Your task to perform on an android device: Go to Yahoo.com Image 0: 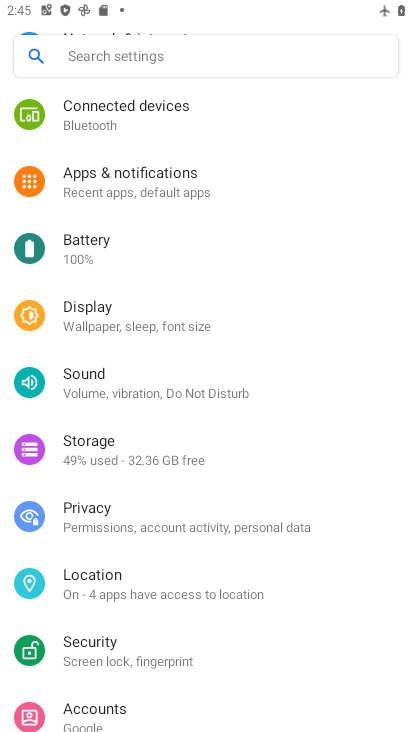
Step 0: press home button
Your task to perform on an android device: Go to Yahoo.com Image 1: 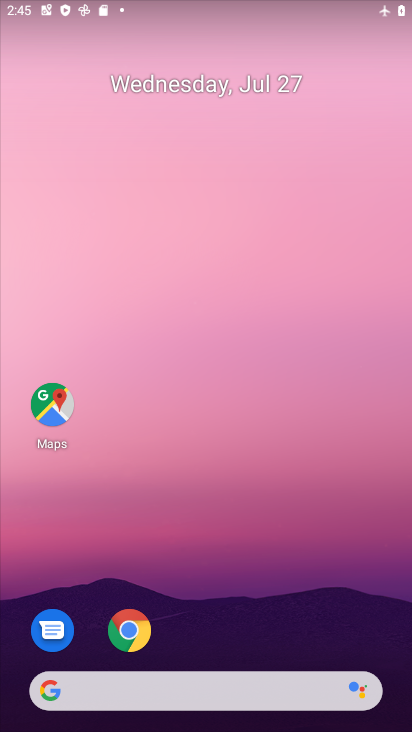
Step 1: click (133, 627)
Your task to perform on an android device: Go to Yahoo.com Image 2: 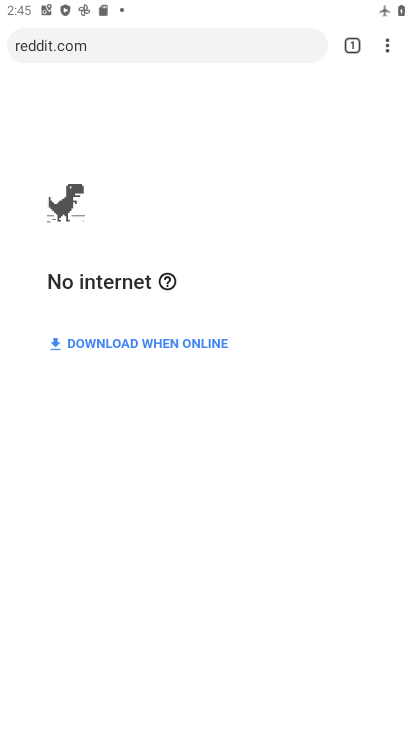
Step 2: press back button
Your task to perform on an android device: Go to Yahoo.com Image 3: 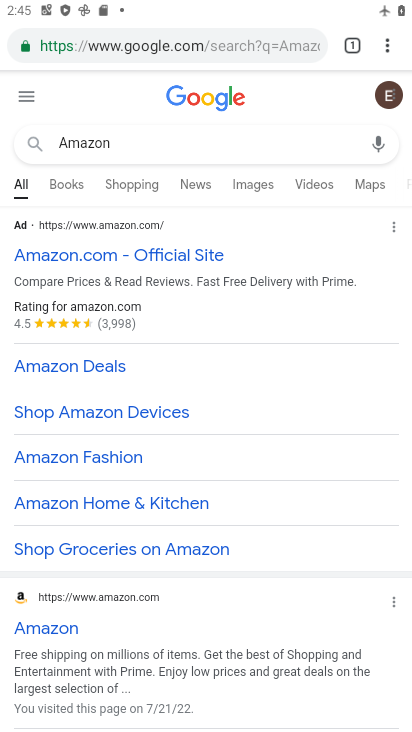
Step 3: click (286, 42)
Your task to perform on an android device: Go to Yahoo.com Image 4: 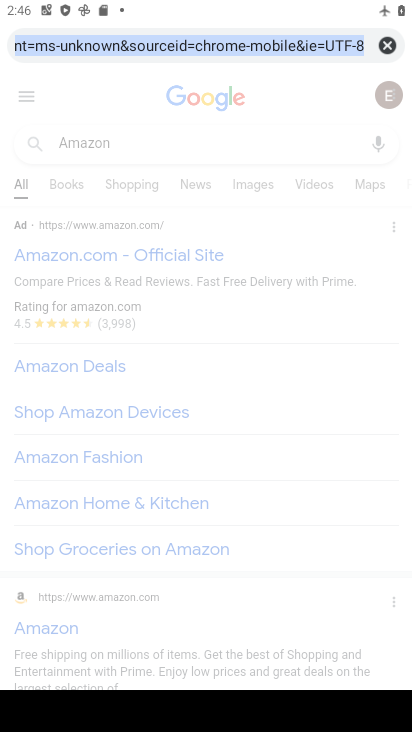
Step 4: press home button
Your task to perform on an android device: Go to Yahoo.com Image 5: 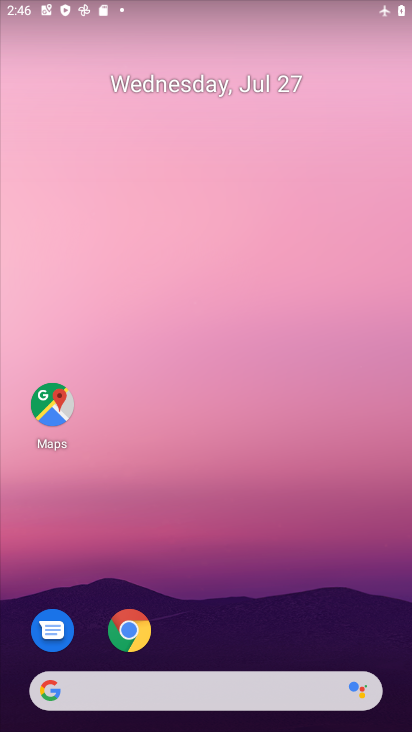
Step 5: click (365, 0)
Your task to perform on an android device: Go to Yahoo.com Image 6: 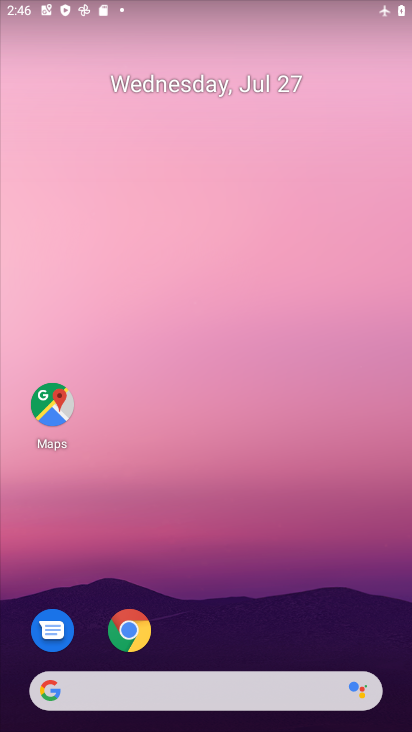
Step 6: drag from (402, 702) to (329, 83)
Your task to perform on an android device: Go to Yahoo.com Image 7: 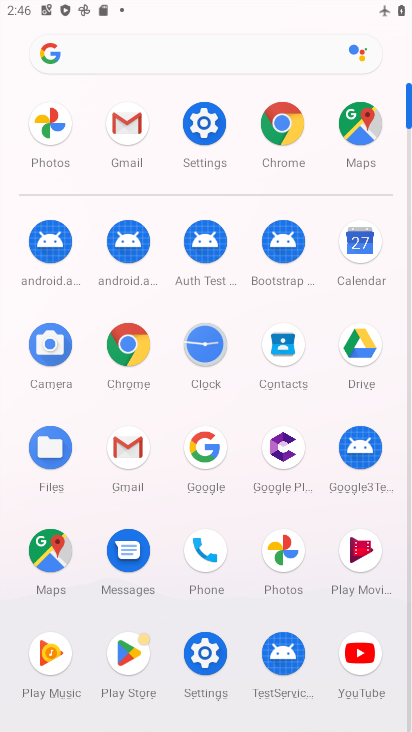
Step 7: click (203, 121)
Your task to perform on an android device: Go to Yahoo.com Image 8: 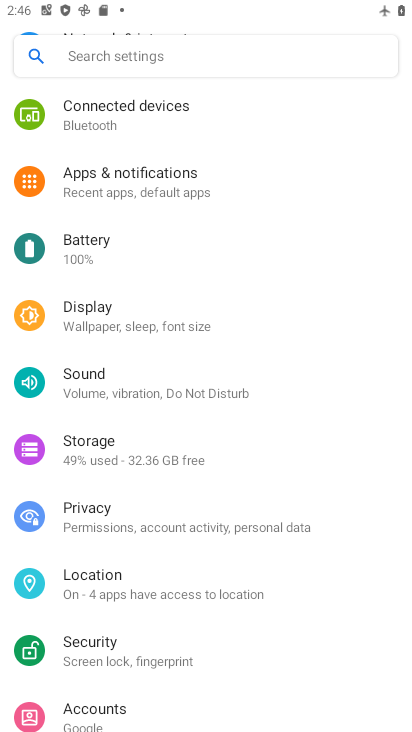
Step 8: drag from (208, 125) to (222, 476)
Your task to perform on an android device: Go to Yahoo.com Image 9: 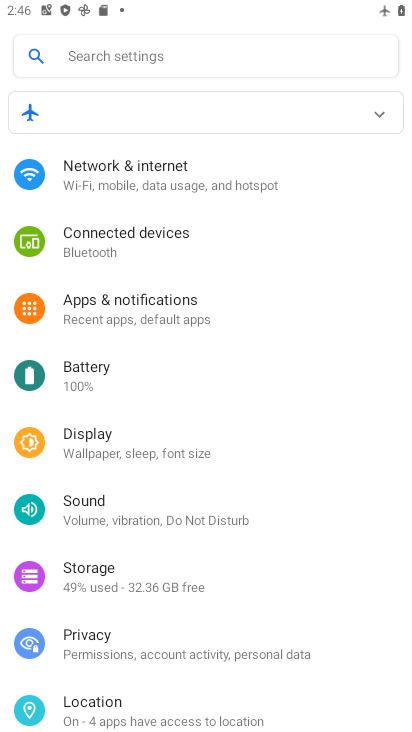
Step 9: click (162, 167)
Your task to perform on an android device: Go to Yahoo.com Image 10: 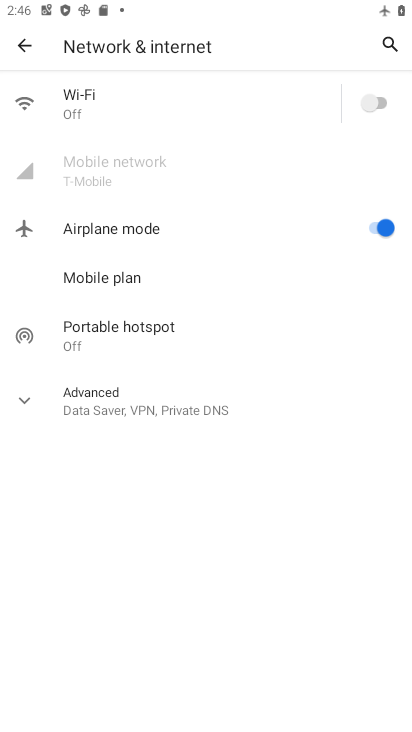
Step 10: click (378, 103)
Your task to perform on an android device: Go to Yahoo.com Image 11: 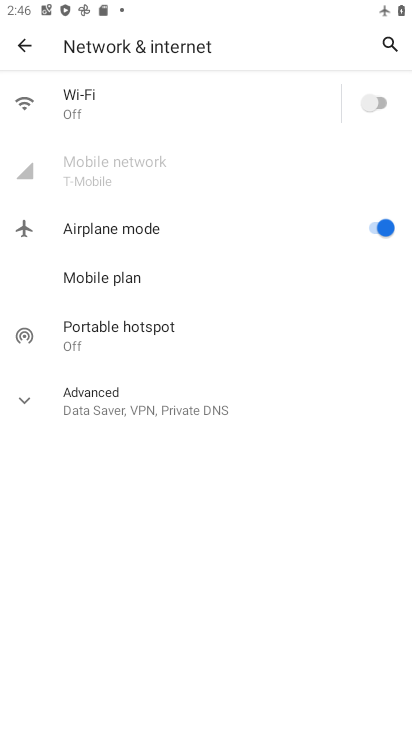
Step 11: click (381, 233)
Your task to perform on an android device: Go to Yahoo.com Image 12: 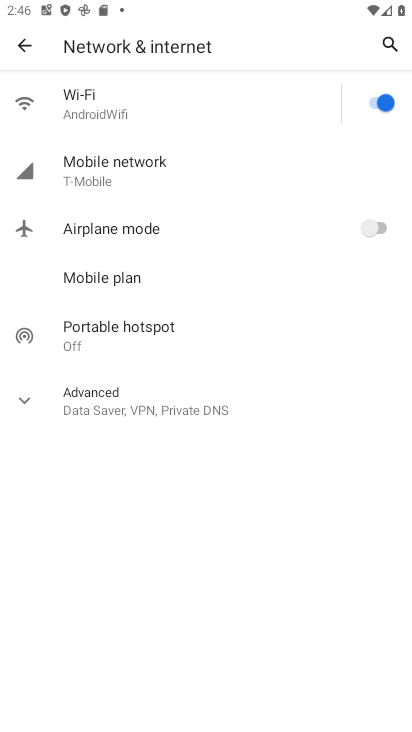
Step 12: click (28, 50)
Your task to perform on an android device: Go to Yahoo.com Image 13: 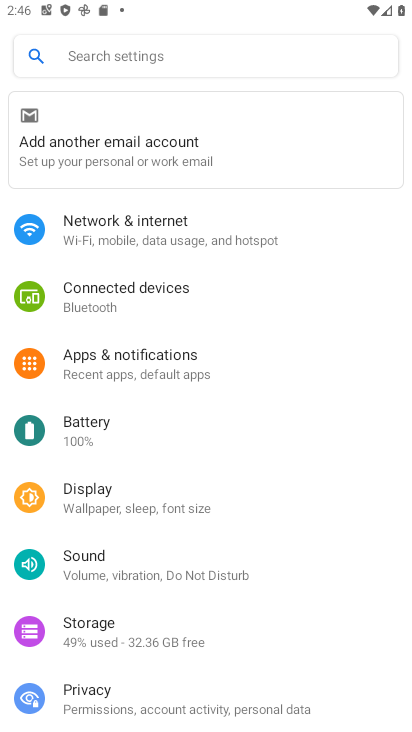
Step 13: press home button
Your task to perform on an android device: Go to Yahoo.com Image 14: 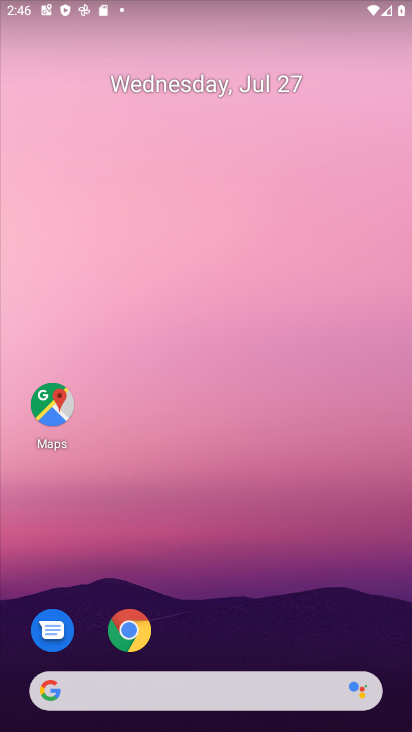
Step 14: click (133, 633)
Your task to perform on an android device: Go to Yahoo.com Image 15: 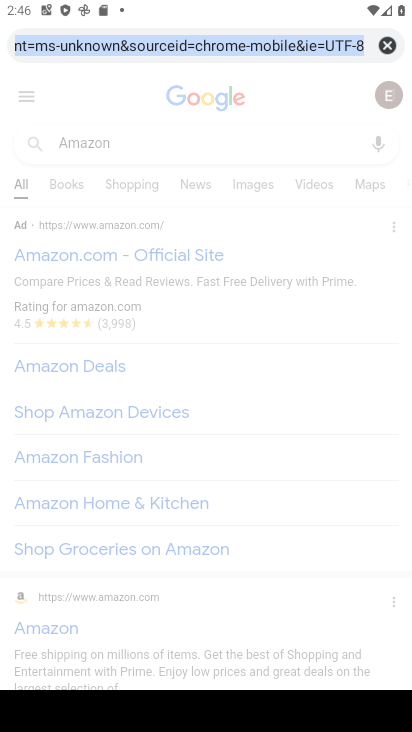
Step 15: click (387, 43)
Your task to perform on an android device: Go to Yahoo.com Image 16: 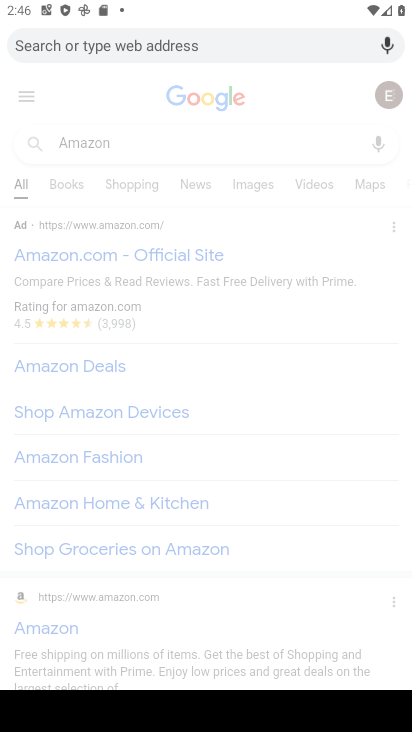
Step 16: type "Yahoo.com"
Your task to perform on an android device: Go to Yahoo.com Image 17: 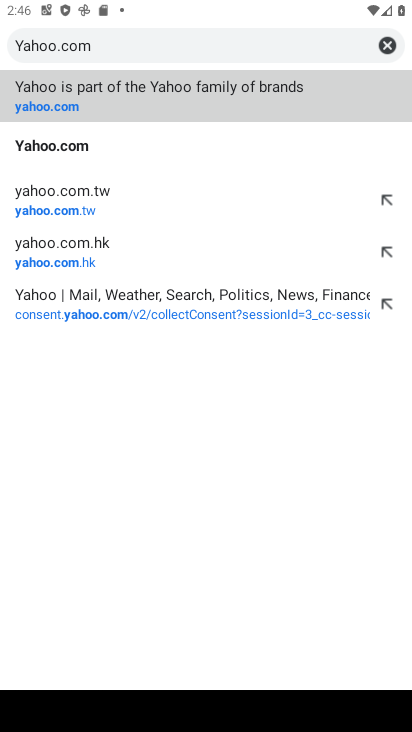
Step 17: click (59, 143)
Your task to perform on an android device: Go to Yahoo.com Image 18: 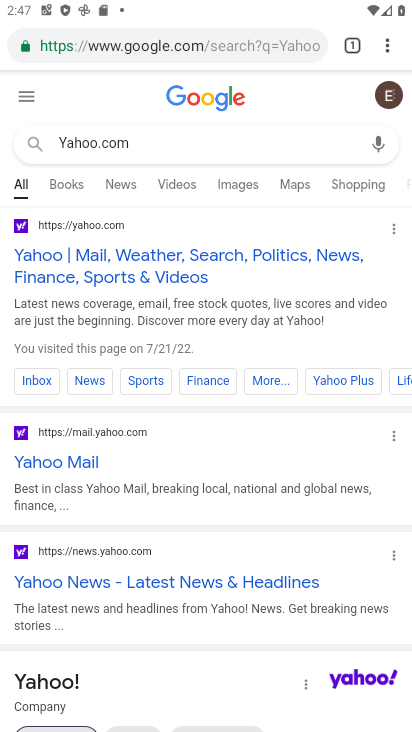
Step 18: task complete